Your task to perform on an android device: Toggle the flashlight Image 0: 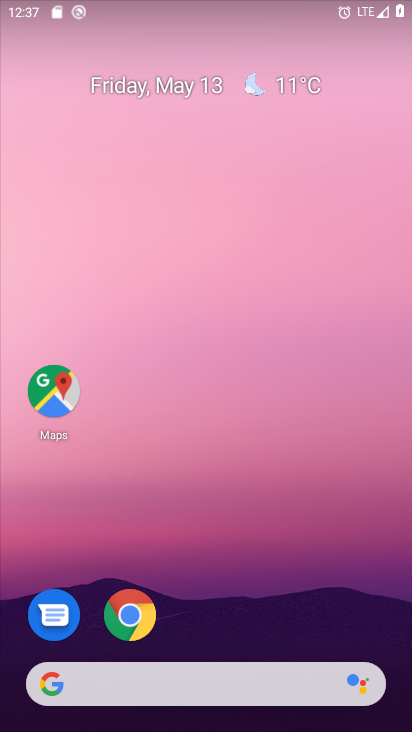
Step 0: drag from (270, 513) to (293, 60)
Your task to perform on an android device: Toggle the flashlight Image 1: 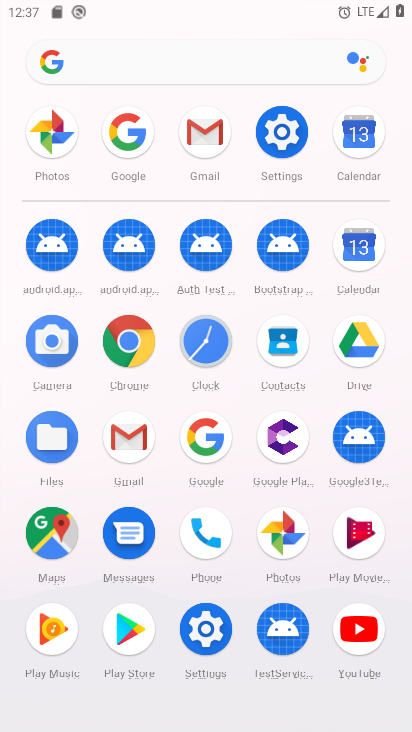
Step 1: click (282, 133)
Your task to perform on an android device: Toggle the flashlight Image 2: 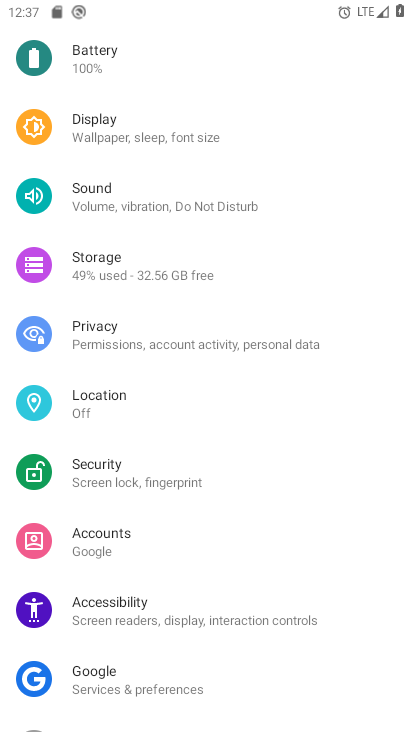
Step 2: drag from (226, 252) to (160, 655)
Your task to perform on an android device: Toggle the flashlight Image 3: 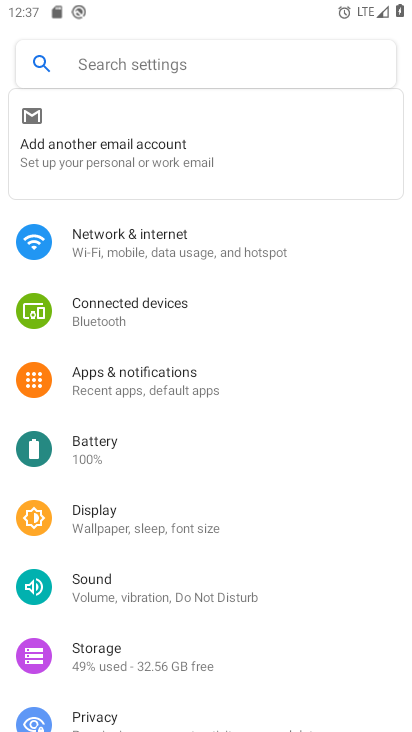
Step 3: drag from (216, 223) to (208, 357)
Your task to perform on an android device: Toggle the flashlight Image 4: 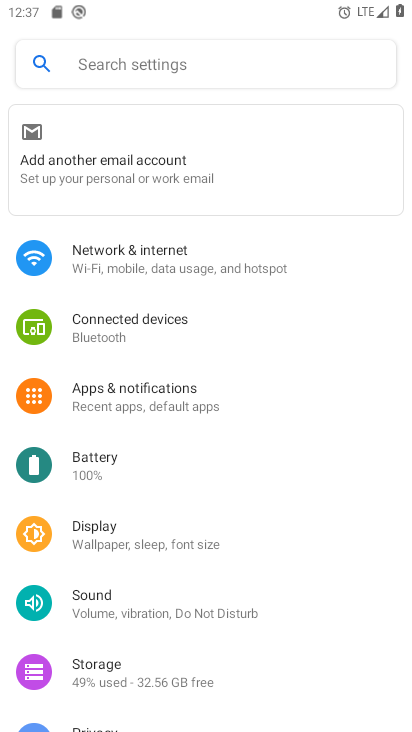
Step 4: click (226, 56)
Your task to perform on an android device: Toggle the flashlight Image 5: 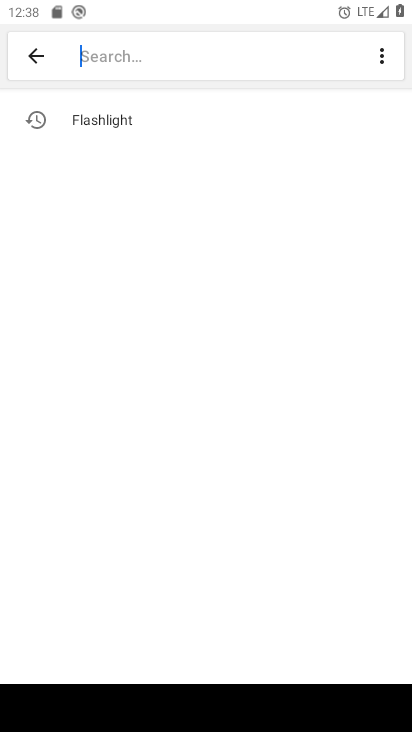
Step 5: click (123, 118)
Your task to perform on an android device: Toggle the flashlight Image 6: 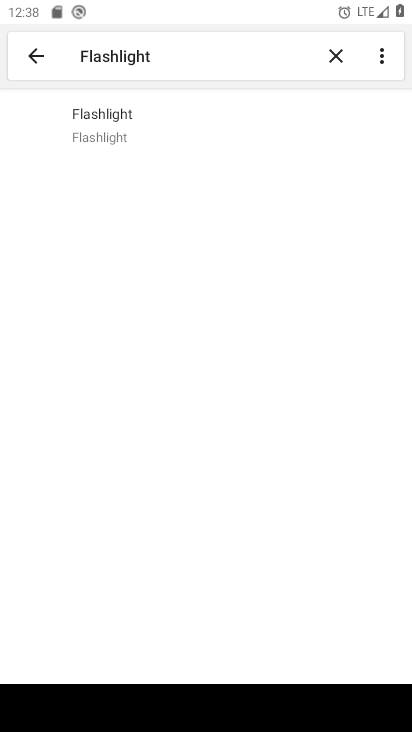
Step 6: click (118, 123)
Your task to perform on an android device: Toggle the flashlight Image 7: 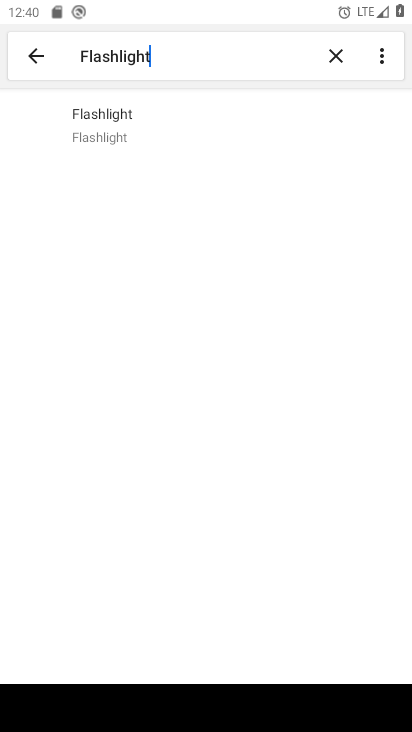
Step 7: task complete